Your task to perform on an android device: Go to network settings Image 0: 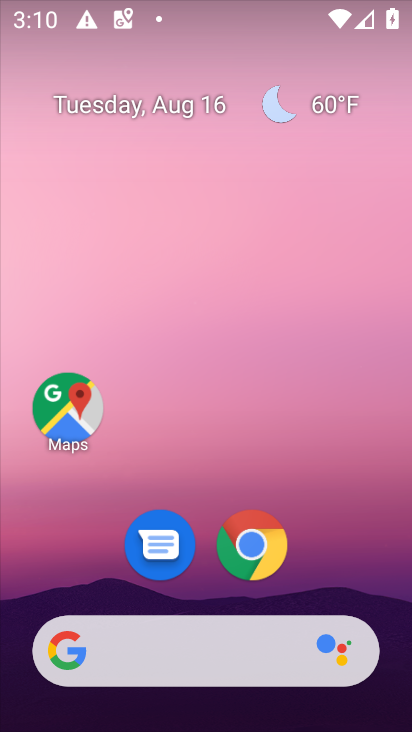
Step 0: click (180, 289)
Your task to perform on an android device: Go to network settings Image 1: 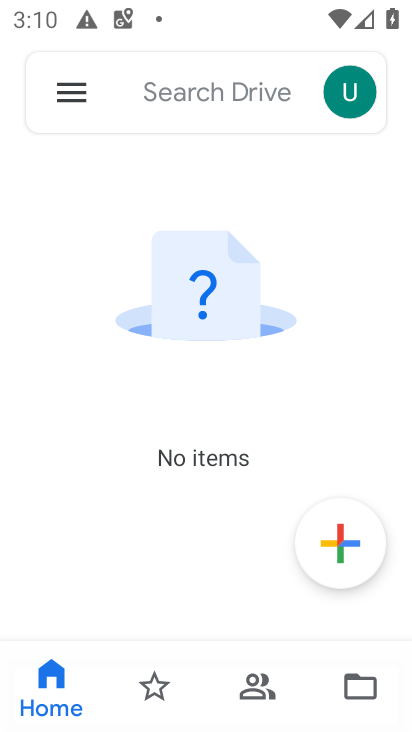
Step 1: press home button
Your task to perform on an android device: Go to network settings Image 2: 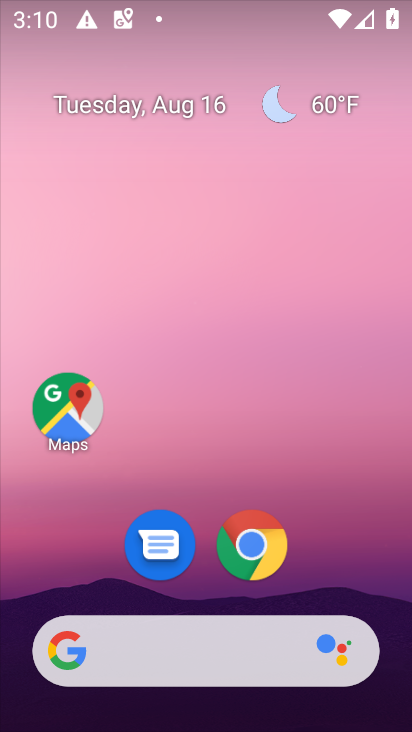
Step 2: drag from (202, 397) to (202, 169)
Your task to perform on an android device: Go to network settings Image 3: 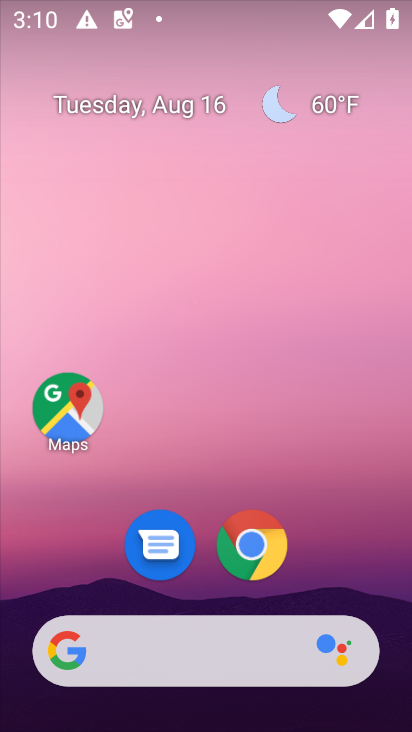
Step 3: drag from (201, 621) to (201, 221)
Your task to perform on an android device: Go to network settings Image 4: 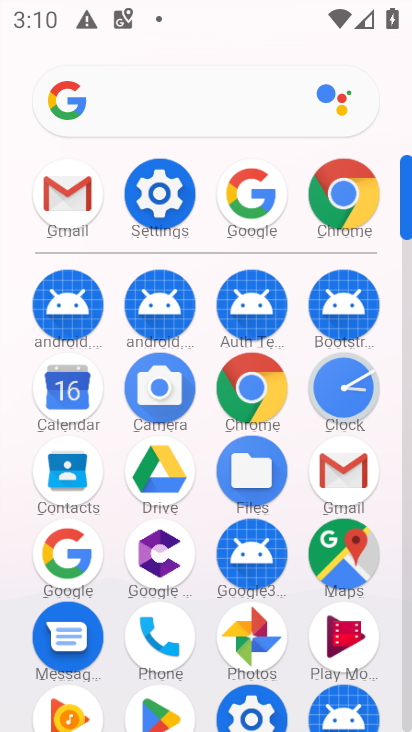
Step 4: click (170, 194)
Your task to perform on an android device: Go to network settings Image 5: 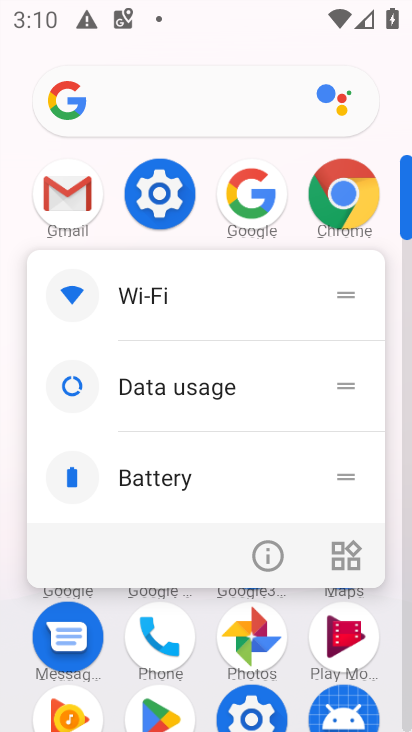
Step 5: click (147, 186)
Your task to perform on an android device: Go to network settings Image 6: 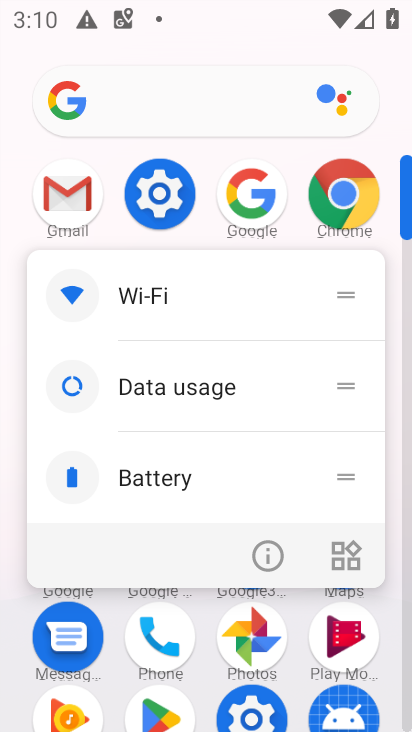
Step 6: click (154, 194)
Your task to perform on an android device: Go to network settings Image 7: 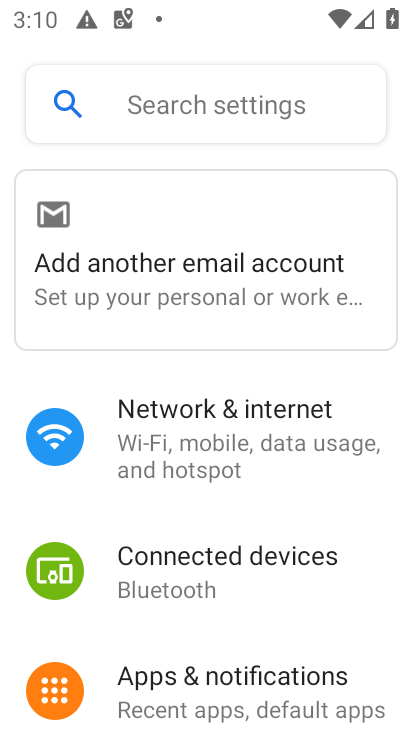
Step 7: click (182, 439)
Your task to perform on an android device: Go to network settings Image 8: 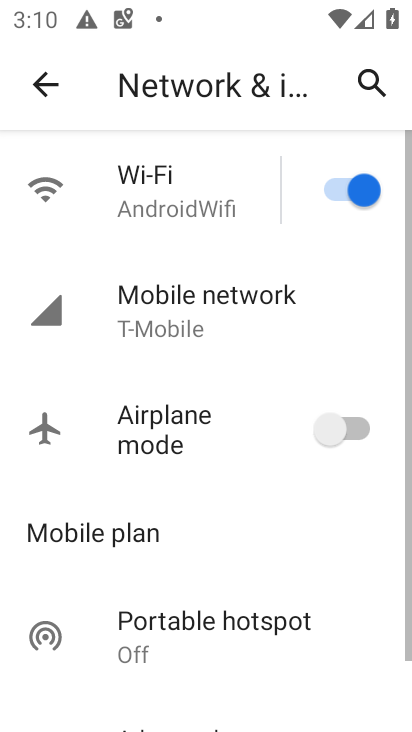
Step 8: click (162, 306)
Your task to perform on an android device: Go to network settings Image 9: 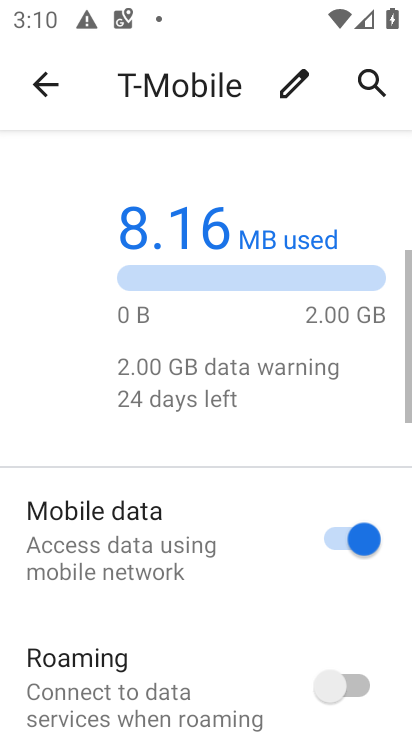
Step 9: task complete